Your task to perform on an android device: Go to display settings Image 0: 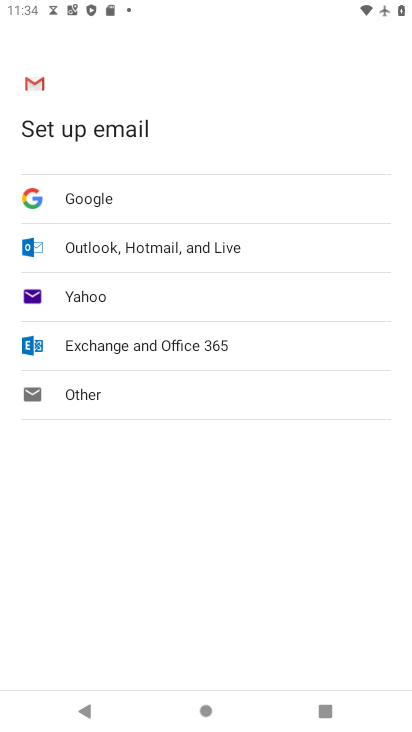
Step 0: press back button
Your task to perform on an android device: Go to display settings Image 1: 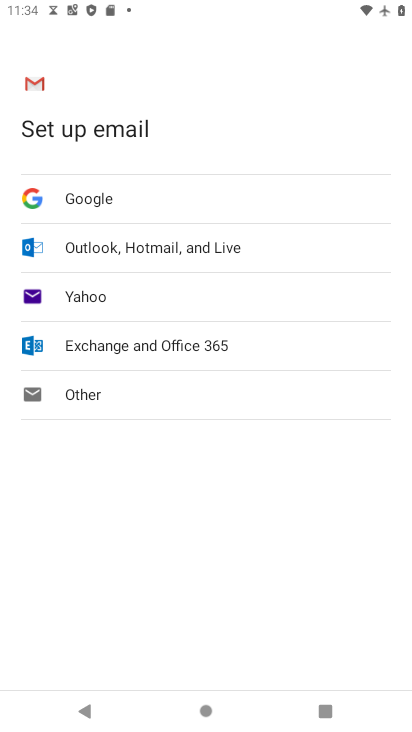
Step 1: press back button
Your task to perform on an android device: Go to display settings Image 2: 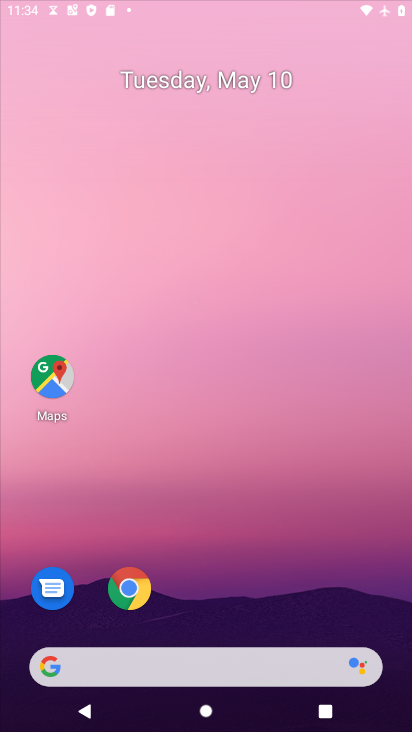
Step 2: press back button
Your task to perform on an android device: Go to display settings Image 3: 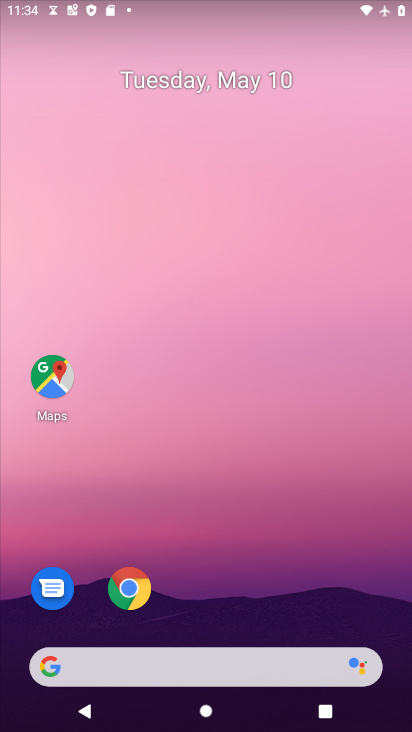
Step 3: drag from (298, 617) to (146, 26)
Your task to perform on an android device: Go to display settings Image 4: 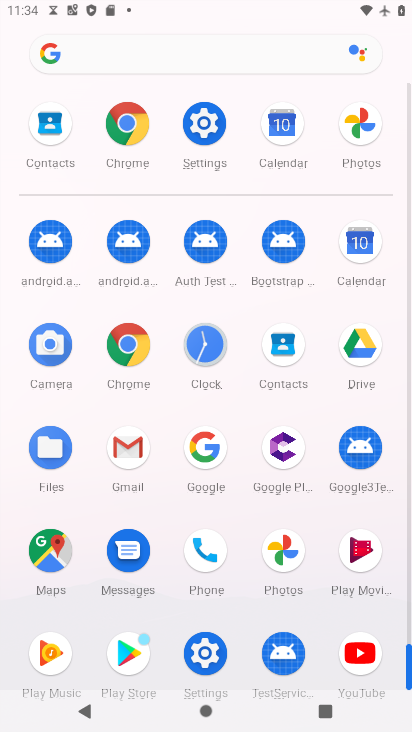
Step 4: click (209, 639)
Your task to perform on an android device: Go to display settings Image 5: 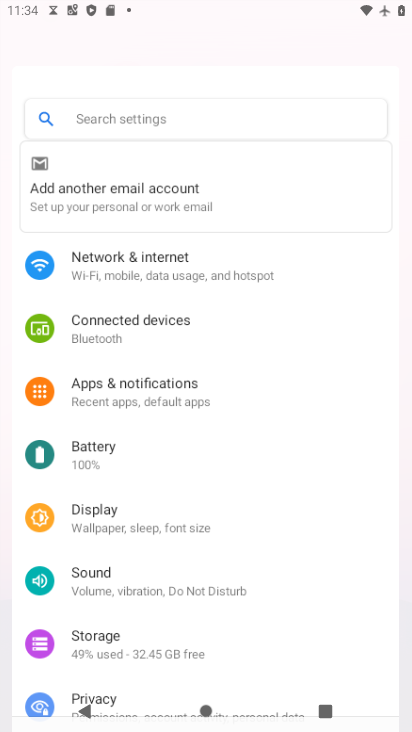
Step 5: click (212, 647)
Your task to perform on an android device: Go to display settings Image 6: 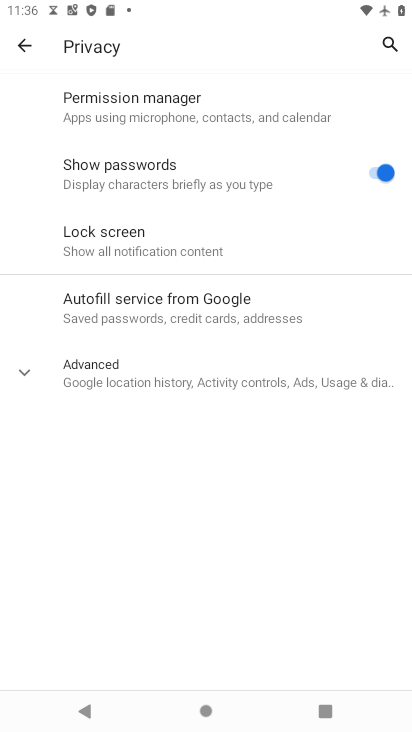
Step 6: click (38, 53)
Your task to perform on an android device: Go to display settings Image 7: 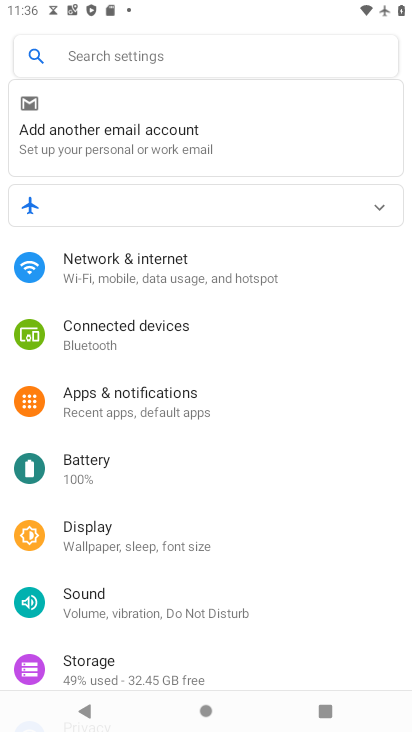
Step 7: click (111, 559)
Your task to perform on an android device: Go to display settings Image 8: 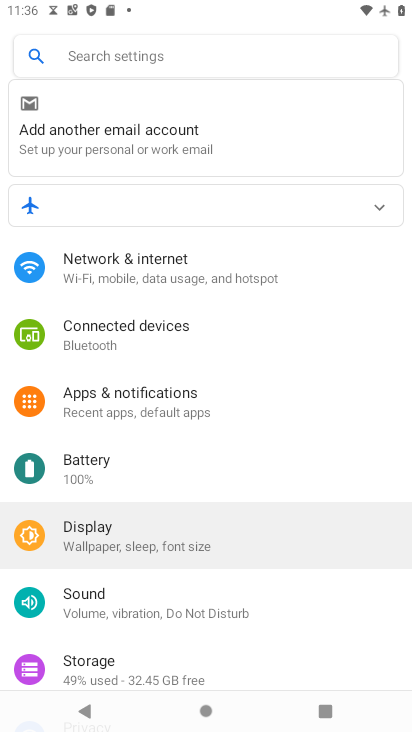
Step 8: click (108, 541)
Your task to perform on an android device: Go to display settings Image 9: 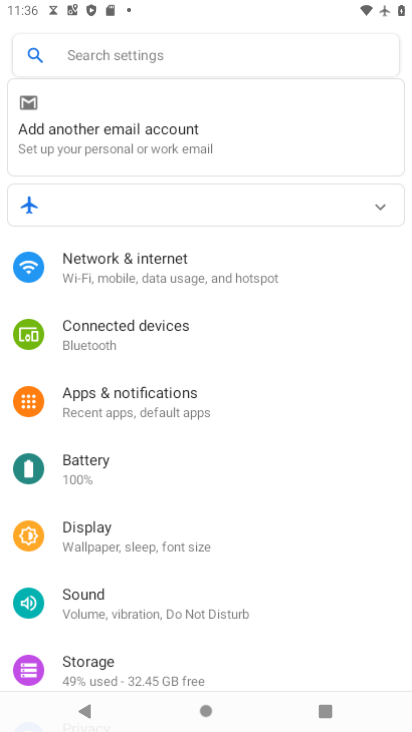
Step 9: click (108, 541)
Your task to perform on an android device: Go to display settings Image 10: 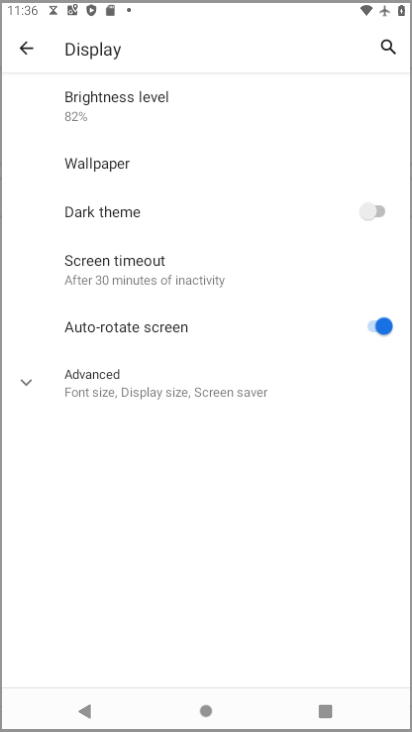
Step 10: click (108, 541)
Your task to perform on an android device: Go to display settings Image 11: 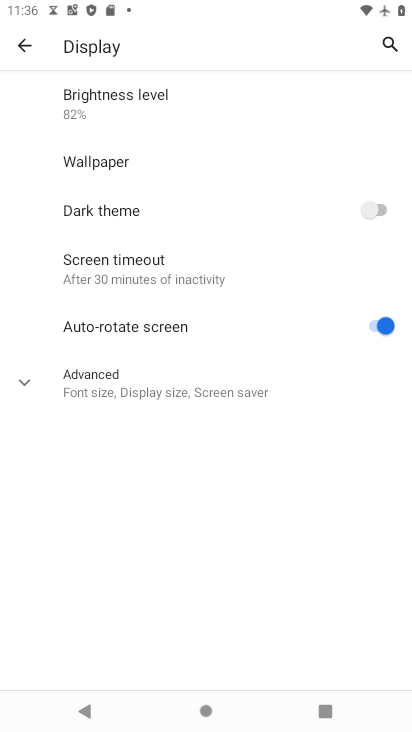
Step 11: task complete